Your task to perform on an android device: Open Yahoo.com Image 0: 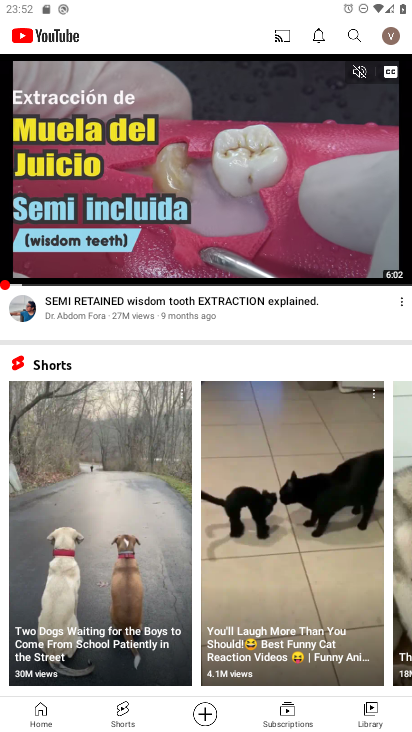
Step 0: press home button
Your task to perform on an android device: Open Yahoo.com Image 1: 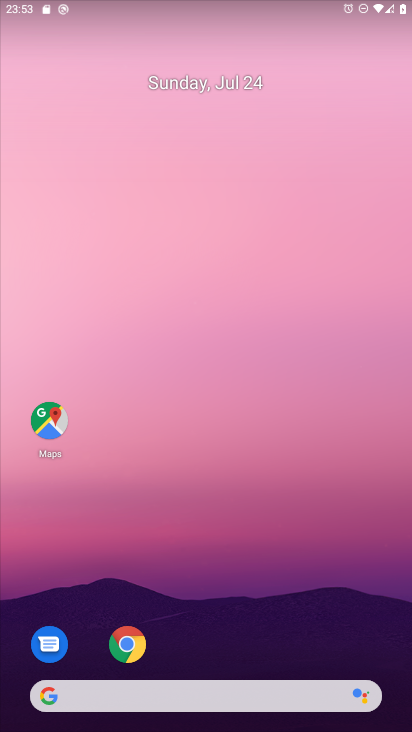
Step 1: click (124, 647)
Your task to perform on an android device: Open Yahoo.com Image 2: 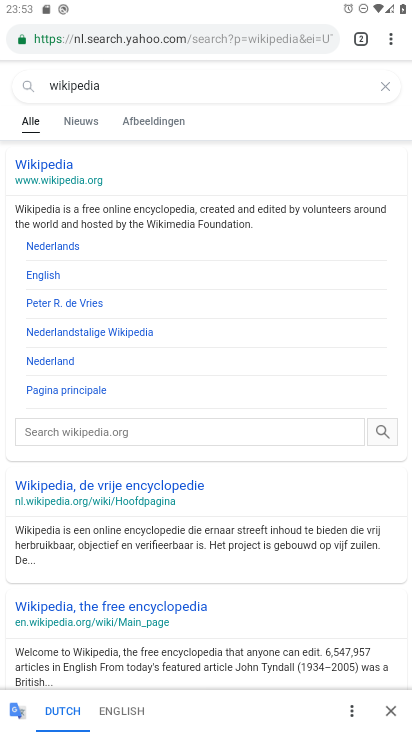
Step 2: click (207, 34)
Your task to perform on an android device: Open Yahoo.com Image 3: 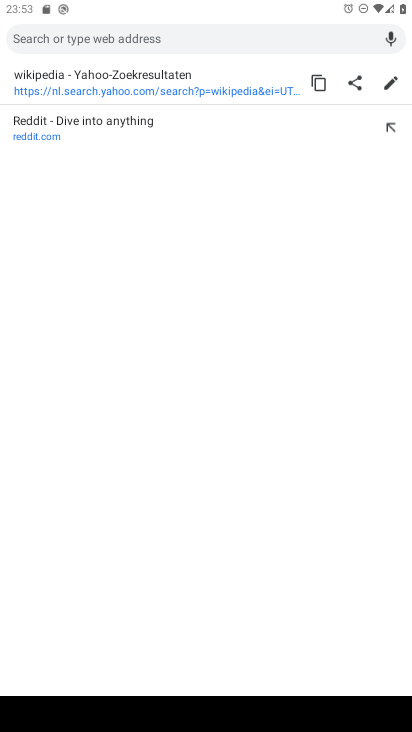
Step 3: type "yahoo.com"
Your task to perform on an android device: Open Yahoo.com Image 4: 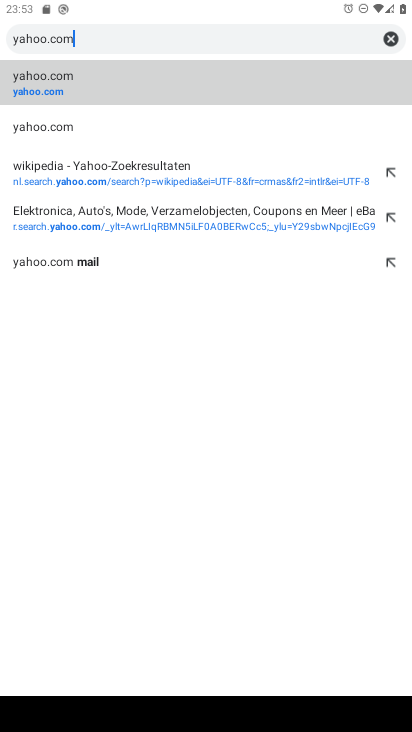
Step 4: click (45, 94)
Your task to perform on an android device: Open Yahoo.com Image 5: 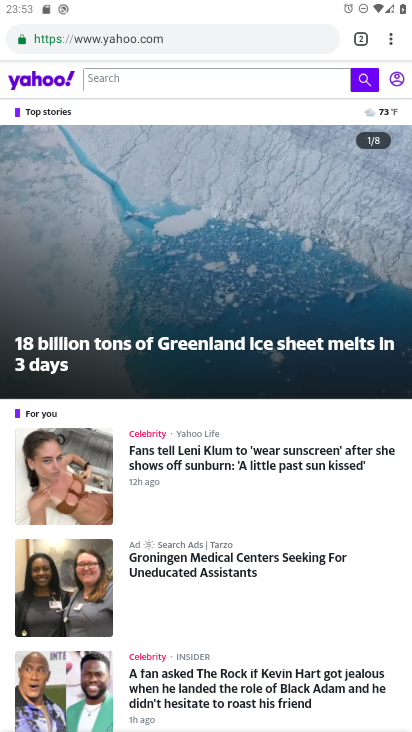
Step 5: task complete